Your task to perform on an android device: change text size in settings app Image 0: 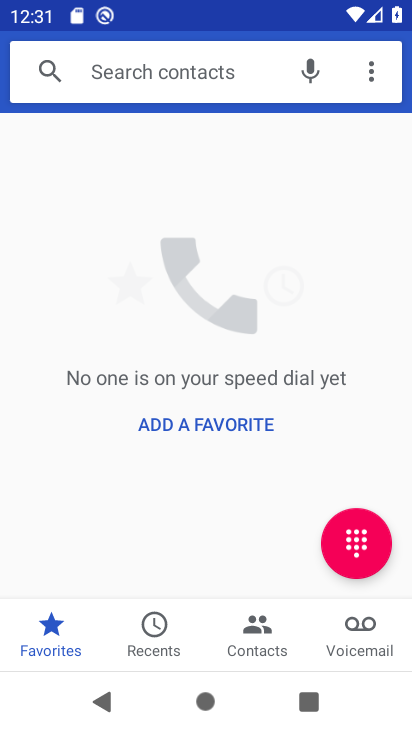
Step 0: press home button
Your task to perform on an android device: change text size in settings app Image 1: 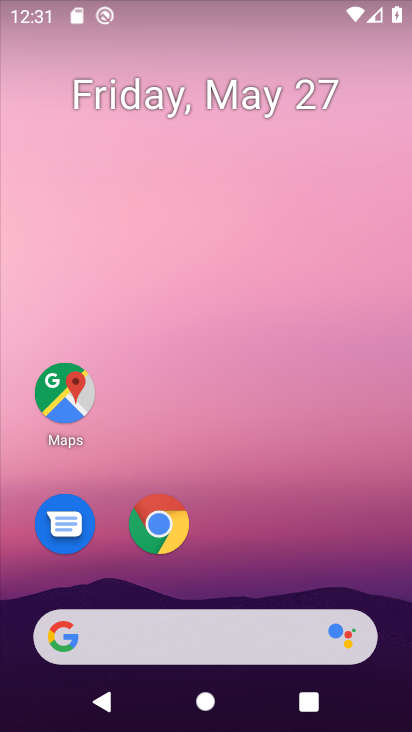
Step 1: drag from (266, 500) to (249, 158)
Your task to perform on an android device: change text size in settings app Image 2: 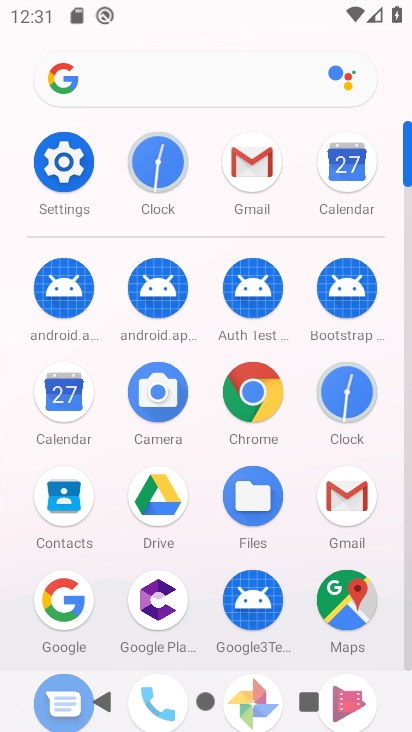
Step 2: click (62, 149)
Your task to perform on an android device: change text size in settings app Image 3: 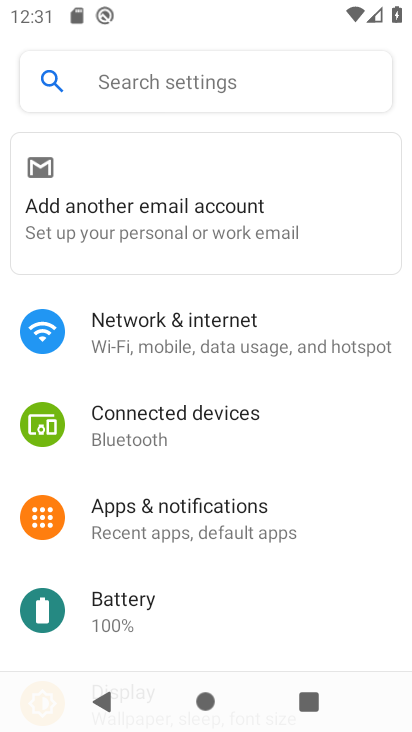
Step 3: drag from (198, 562) to (218, 232)
Your task to perform on an android device: change text size in settings app Image 4: 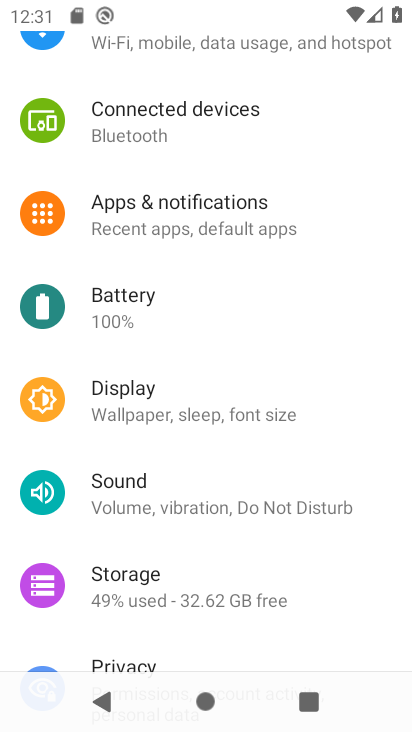
Step 4: click (173, 411)
Your task to perform on an android device: change text size in settings app Image 5: 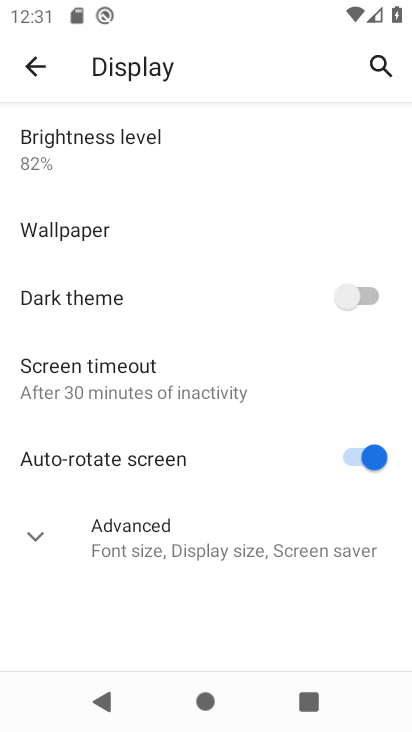
Step 5: click (33, 529)
Your task to perform on an android device: change text size in settings app Image 6: 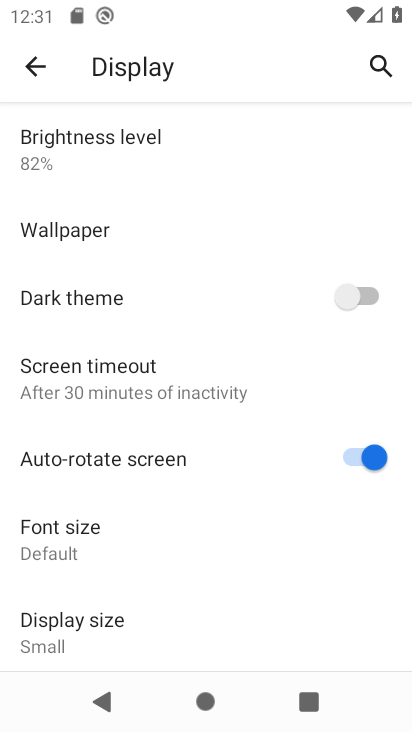
Step 6: click (104, 547)
Your task to perform on an android device: change text size in settings app Image 7: 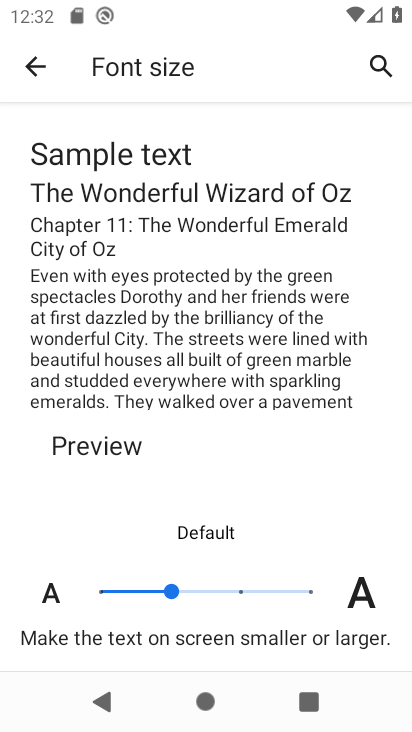
Step 7: click (240, 584)
Your task to perform on an android device: change text size in settings app Image 8: 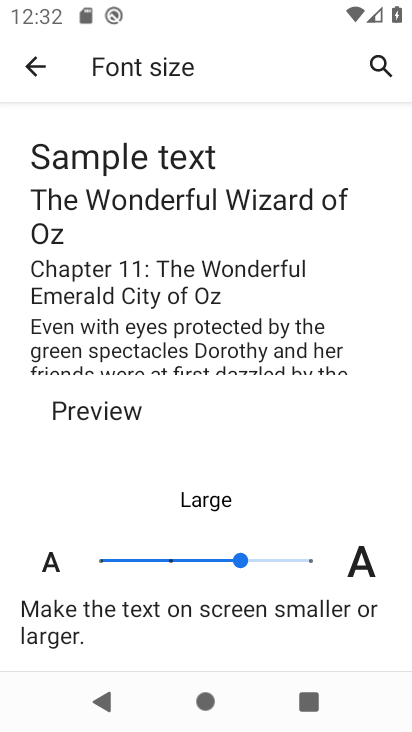
Step 8: click (37, 50)
Your task to perform on an android device: change text size in settings app Image 9: 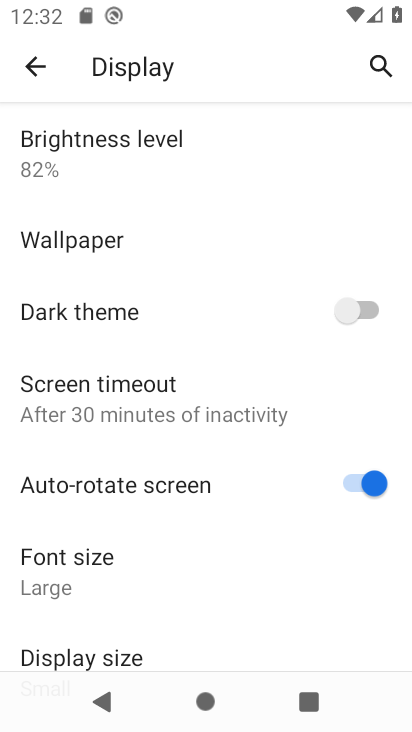
Step 9: task complete